Your task to perform on an android device: turn on data saver in the chrome app Image 0: 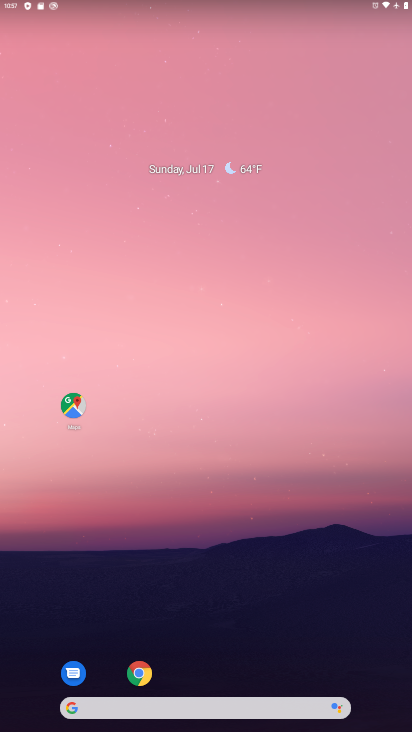
Step 0: click (142, 678)
Your task to perform on an android device: turn on data saver in the chrome app Image 1: 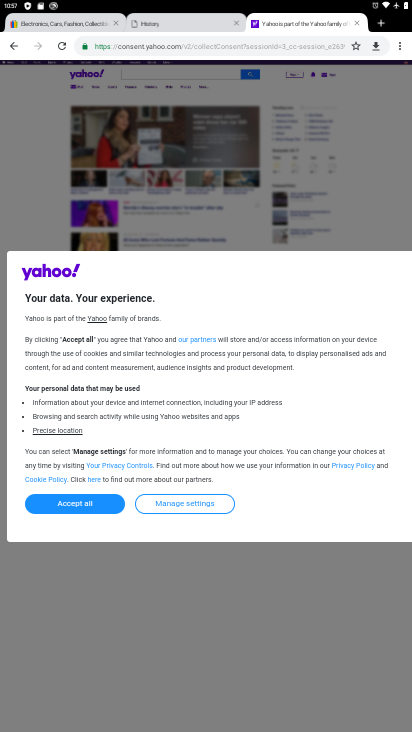
Step 1: click (405, 46)
Your task to perform on an android device: turn on data saver in the chrome app Image 2: 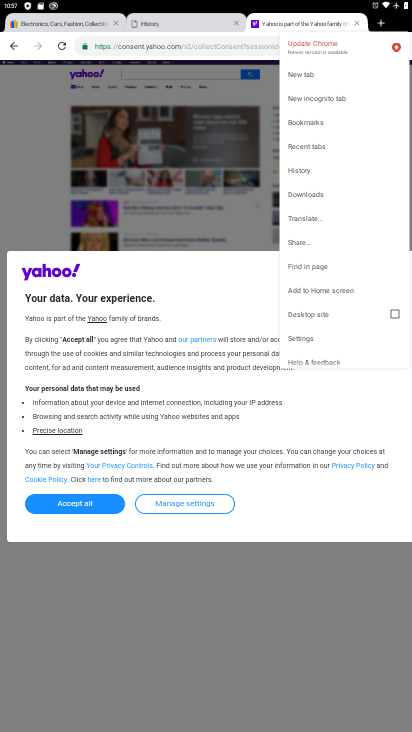
Step 2: click (331, 340)
Your task to perform on an android device: turn on data saver in the chrome app Image 3: 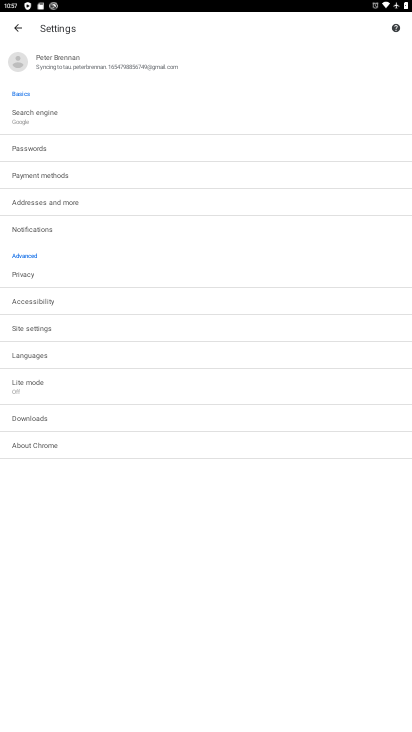
Step 3: click (133, 389)
Your task to perform on an android device: turn on data saver in the chrome app Image 4: 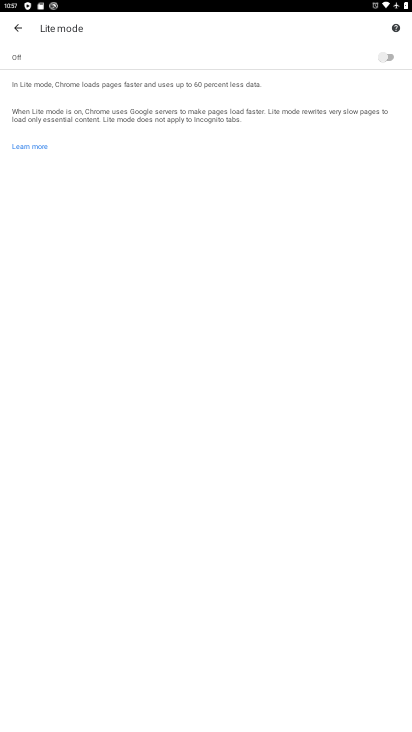
Step 4: click (378, 66)
Your task to perform on an android device: turn on data saver in the chrome app Image 5: 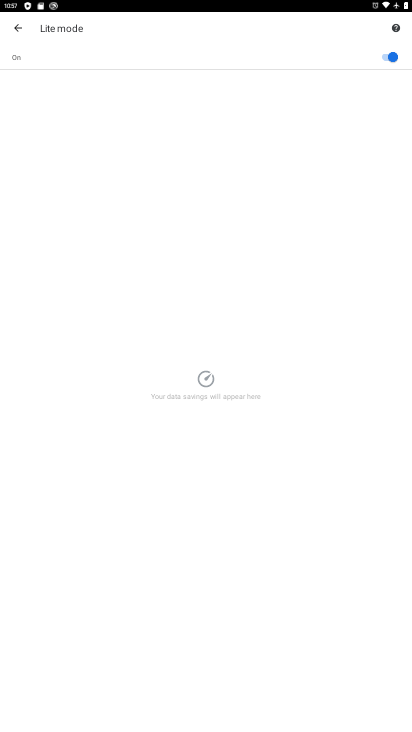
Step 5: task complete